Your task to perform on an android device: Search for corsair k70 on costco, select the first entry, add it to the cart, then select checkout. Image 0: 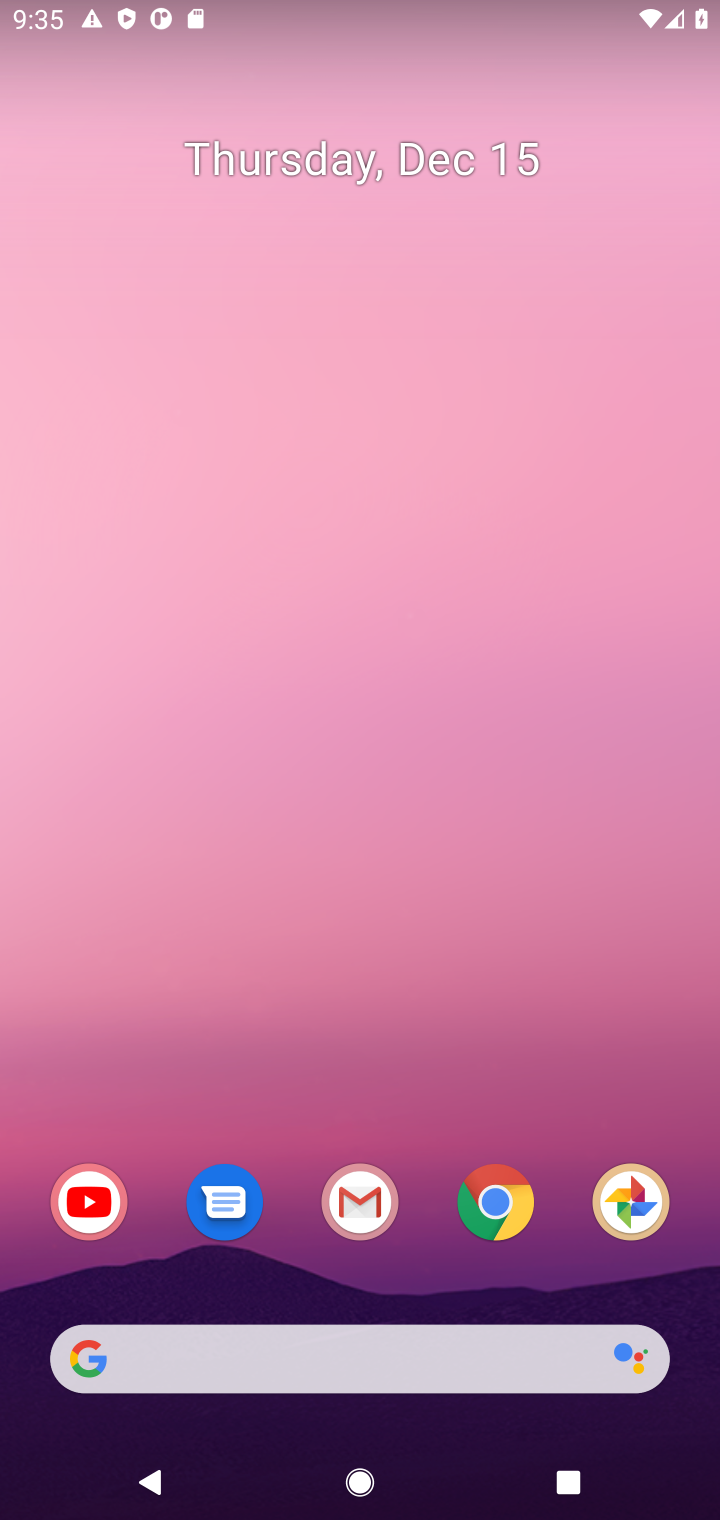
Step 0: click (505, 1206)
Your task to perform on an android device: Search for corsair k70 on costco, select the first entry, add it to the cart, then select checkout. Image 1: 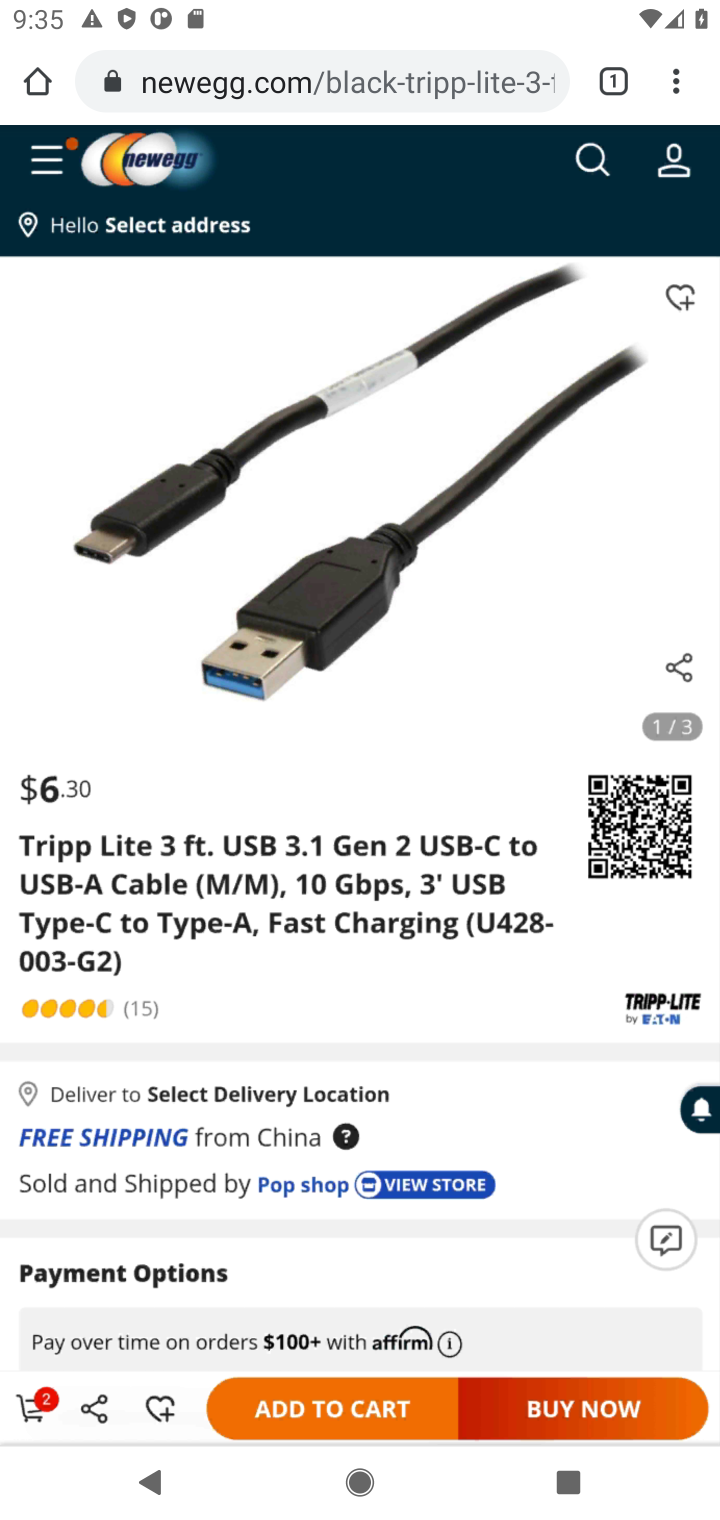
Step 1: click (314, 82)
Your task to perform on an android device: Search for corsair k70 on costco, select the first entry, add it to the cart, then select checkout. Image 2: 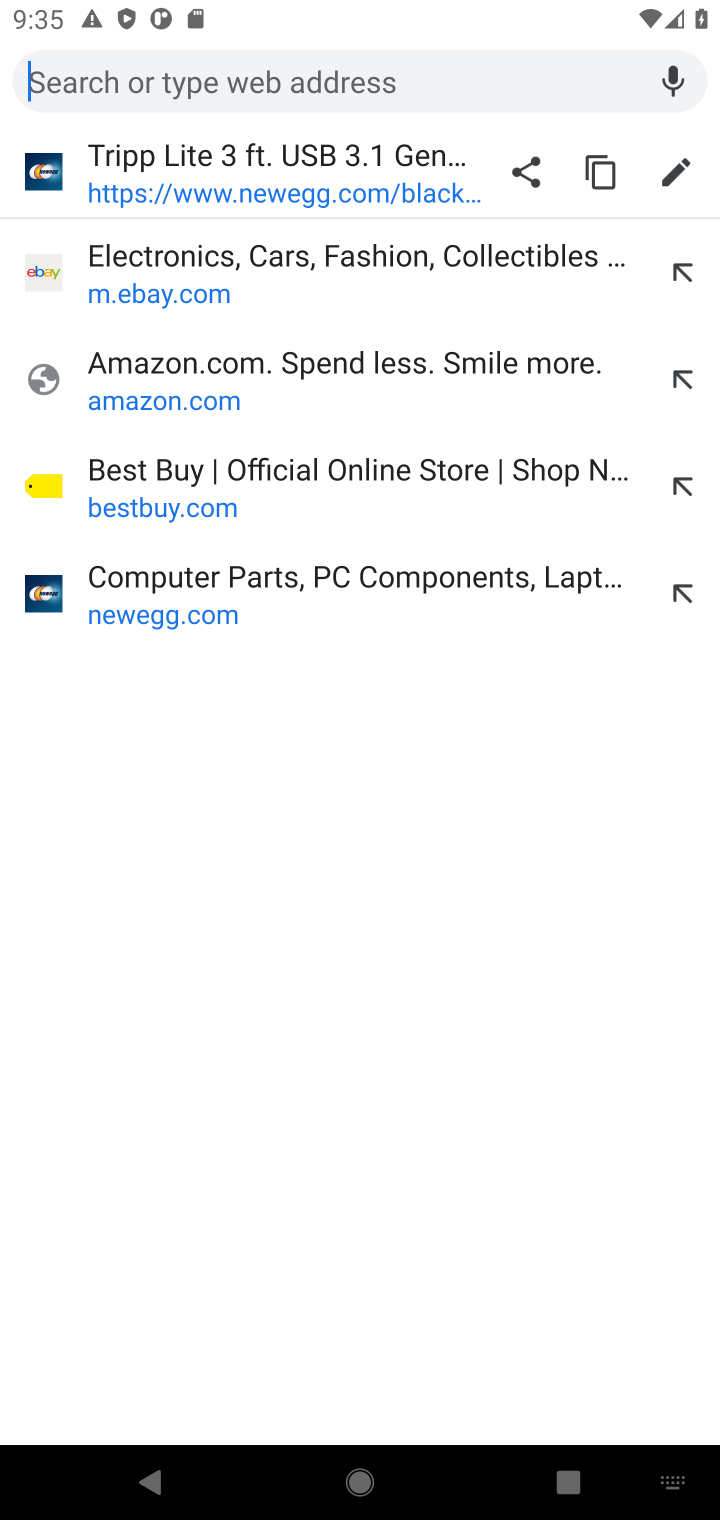
Step 2: type "costco.com"
Your task to perform on an android device: Search for corsair k70 on costco, select the first entry, add it to the cart, then select checkout. Image 3: 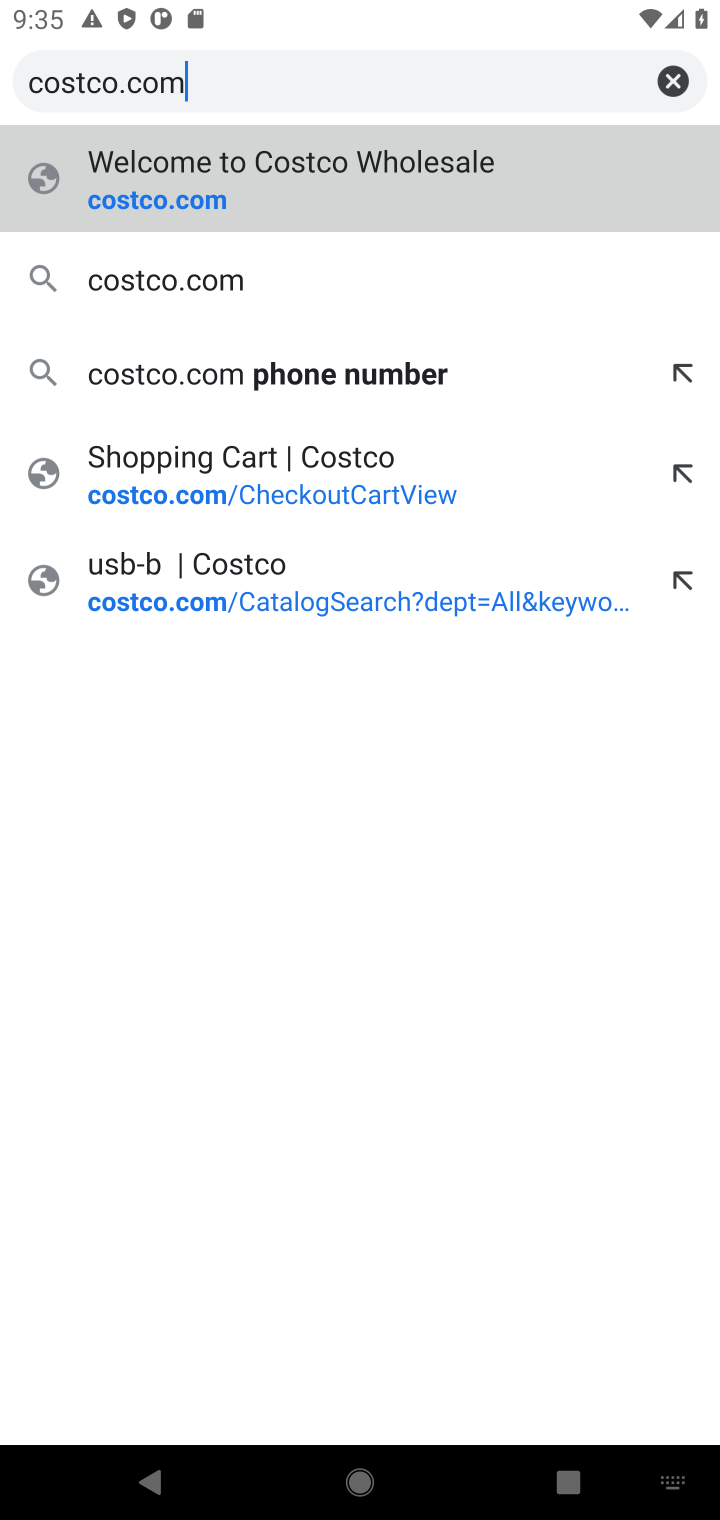
Step 3: click (118, 204)
Your task to perform on an android device: Search for corsair k70 on costco, select the first entry, add it to the cart, then select checkout. Image 4: 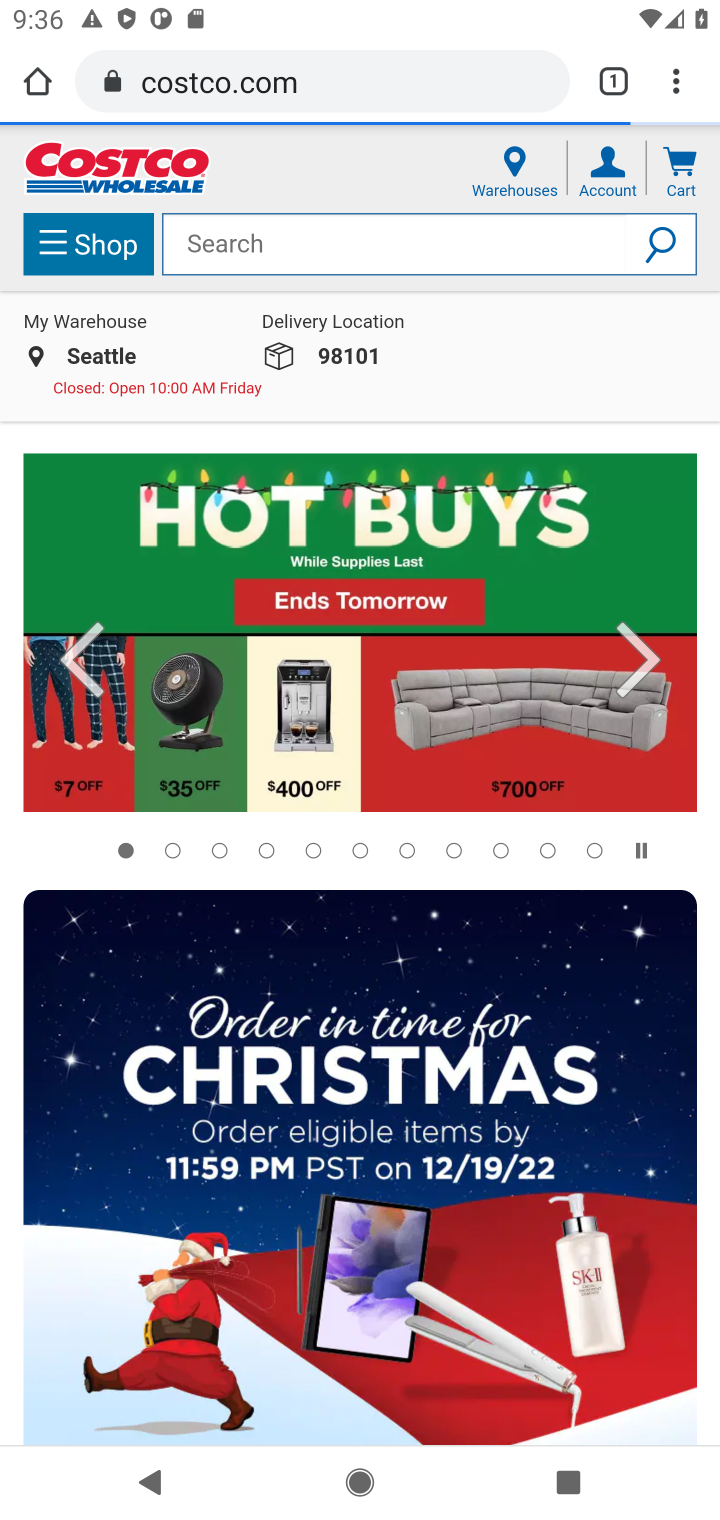
Step 4: click (242, 251)
Your task to perform on an android device: Search for corsair k70 on costco, select the first entry, add it to the cart, then select checkout. Image 5: 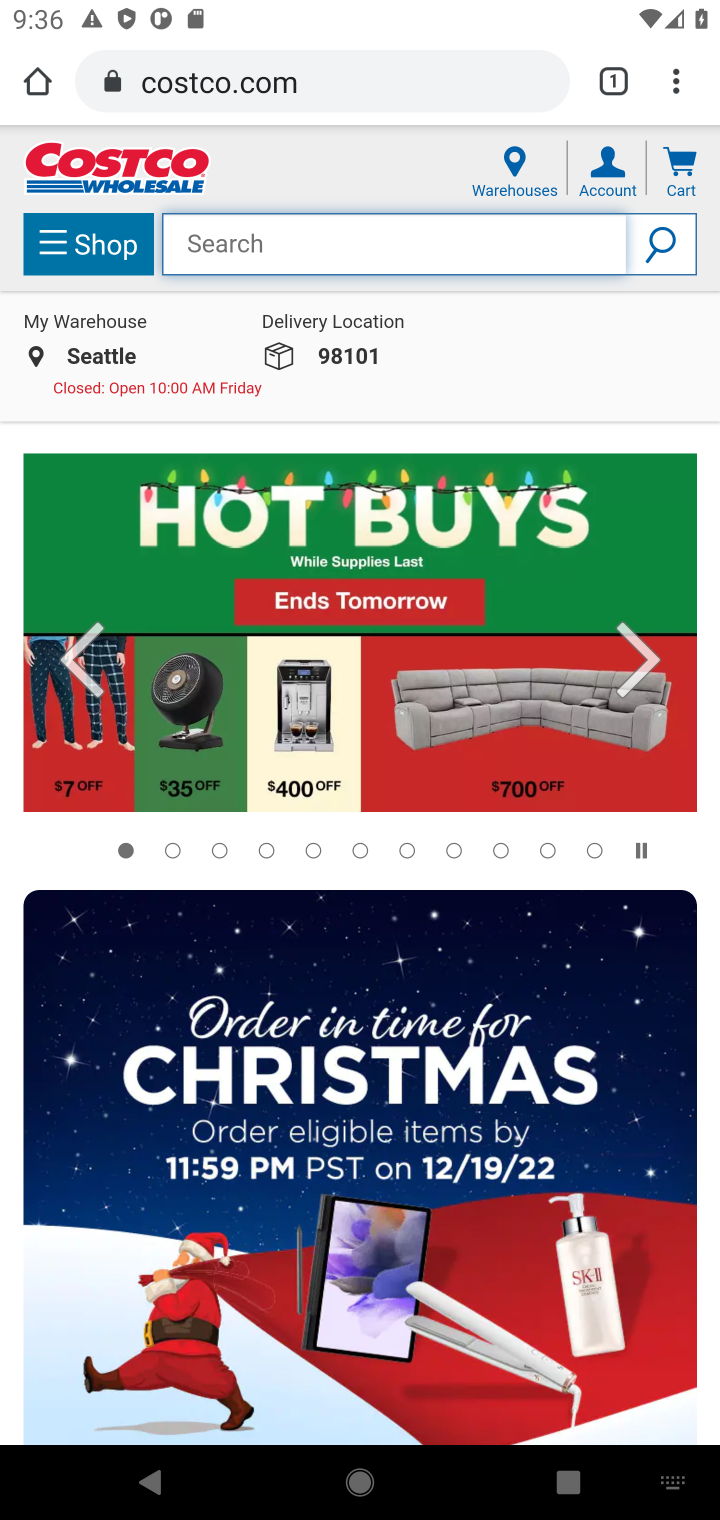
Step 5: type "corsair k70"
Your task to perform on an android device: Search for corsair k70 on costco, select the first entry, add it to the cart, then select checkout. Image 6: 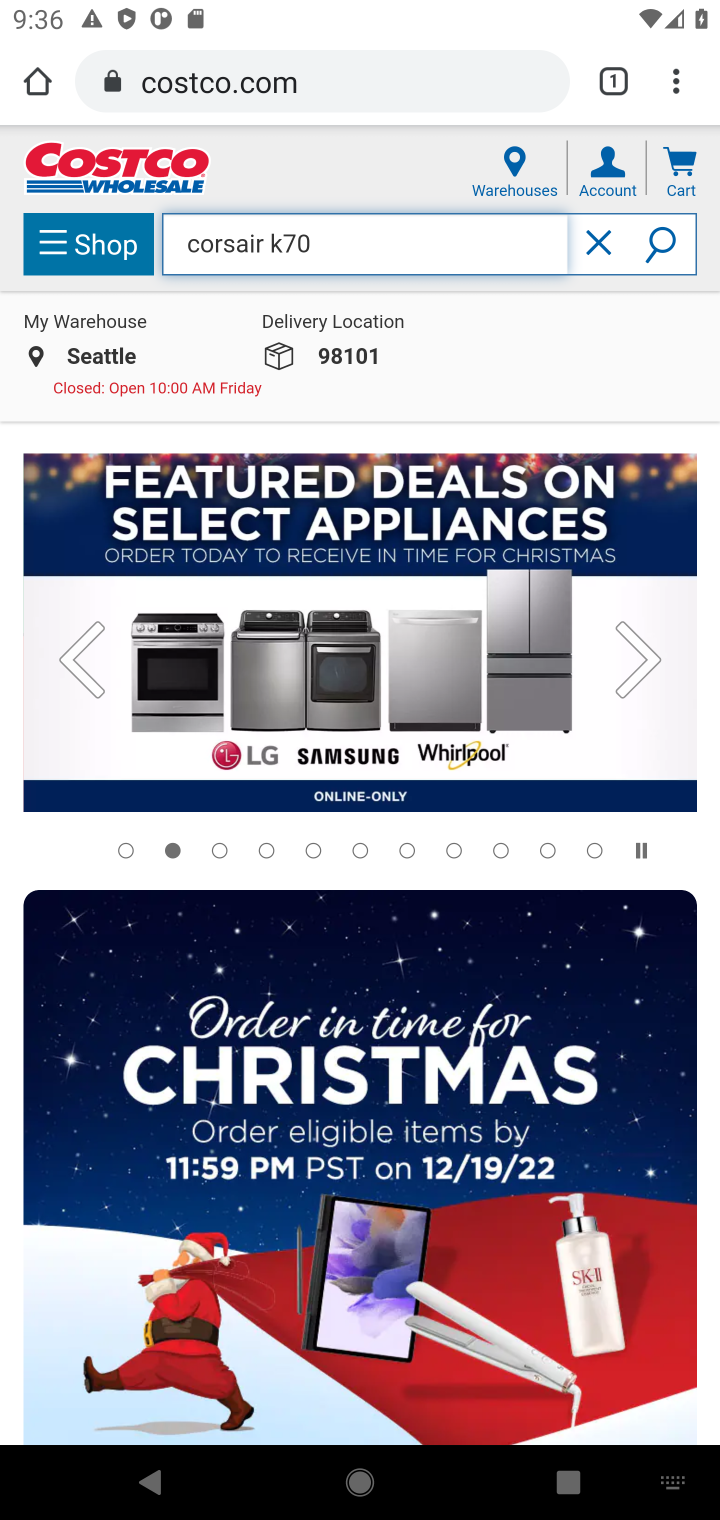
Step 6: click (663, 249)
Your task to perform on an android device: Search for corsair k70 on costco, select the first entry, add it to the cart, then select checkout. Image 7: 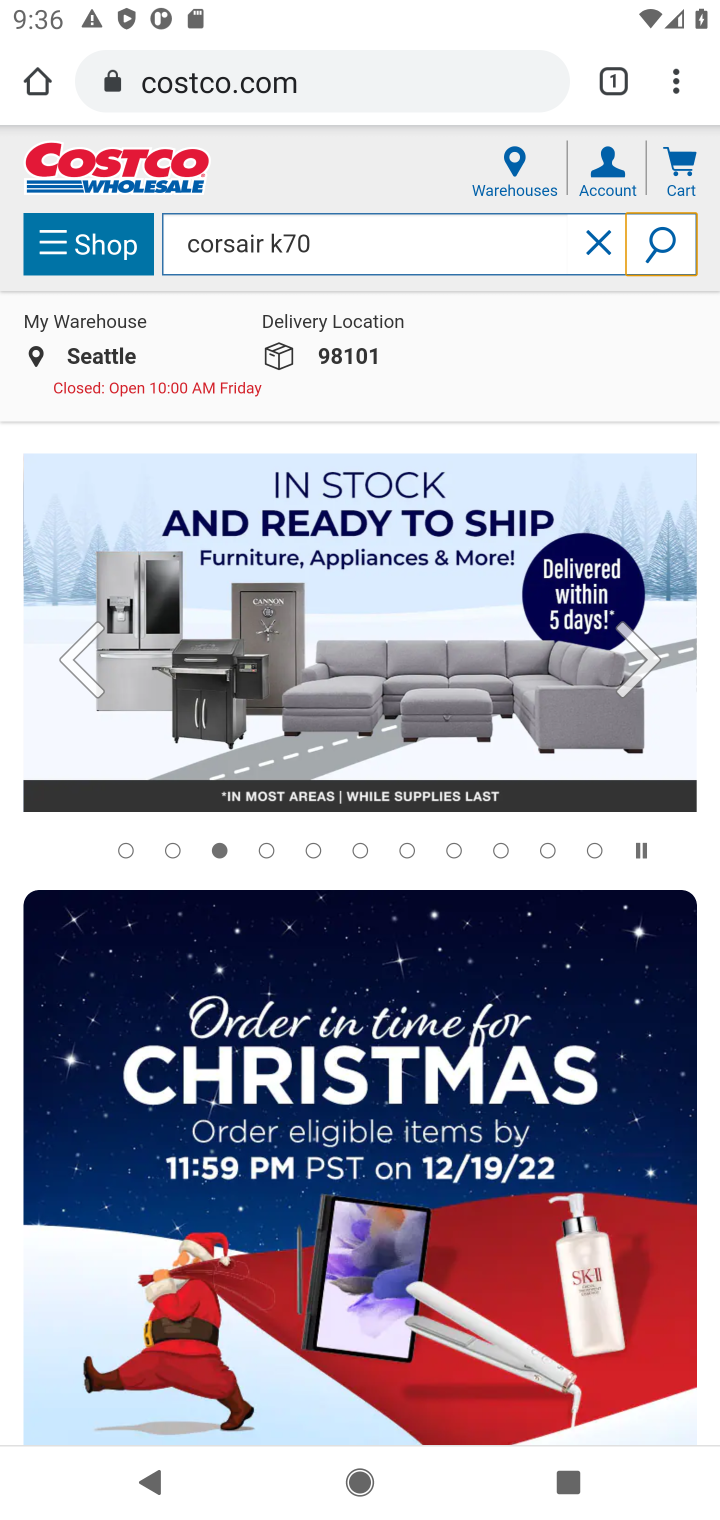
Step 7: click (662, 252)
Your task to perform on an android device: Search for corsair k70 on costco, select the first entry, add it to the cart, then select checkout. Image 8: 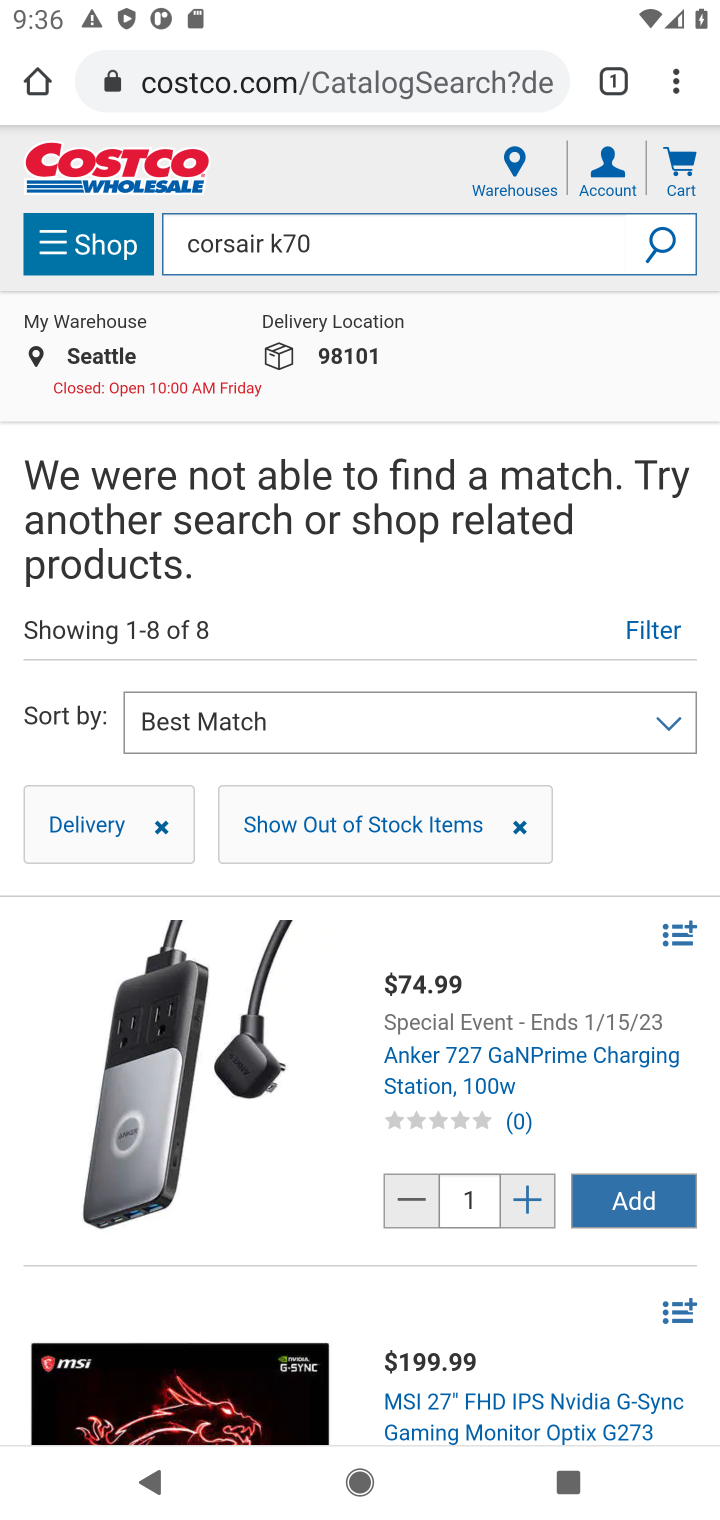
Step 8: task complete